Your task to perform on an android device: Is it going to rain today? Image 0: 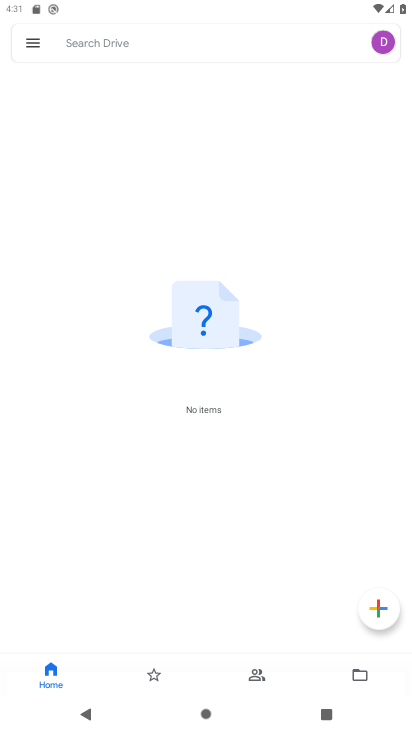
Step 0: press home button
Your task to perform on an android device: Is it going to rain today? Image 1: 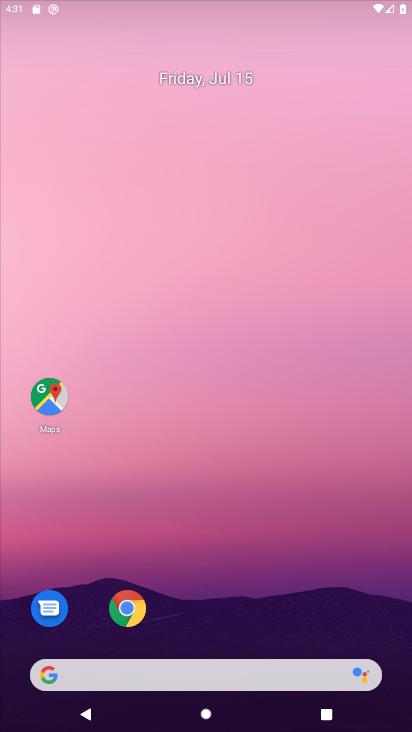
Step 1: click (181, 672)
Your task to perform on an android device: Is it going to rain today? Image 2: 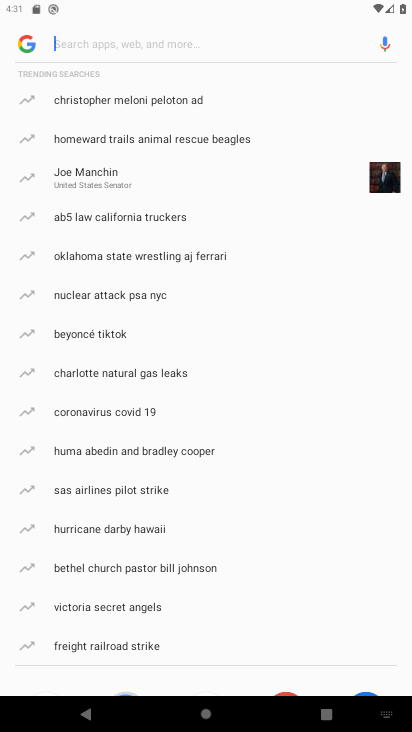
Step 2: type "weather"
Your task to perform on an android device: Is it going to rain today? Image 3: 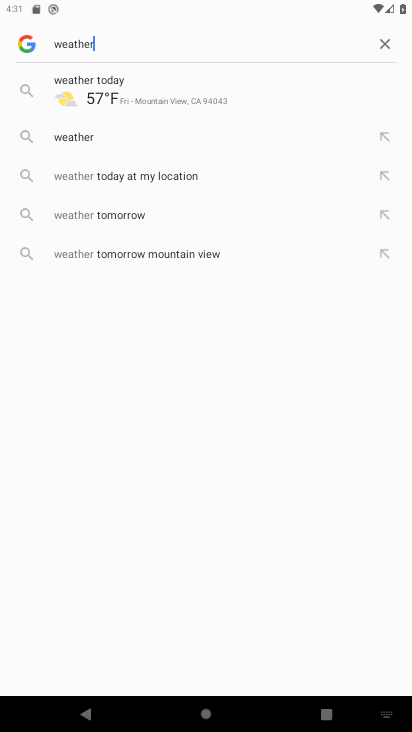
Step 3: click (95, 142)
Your task to perform on an android device: Is it going to rain today? Image 4: 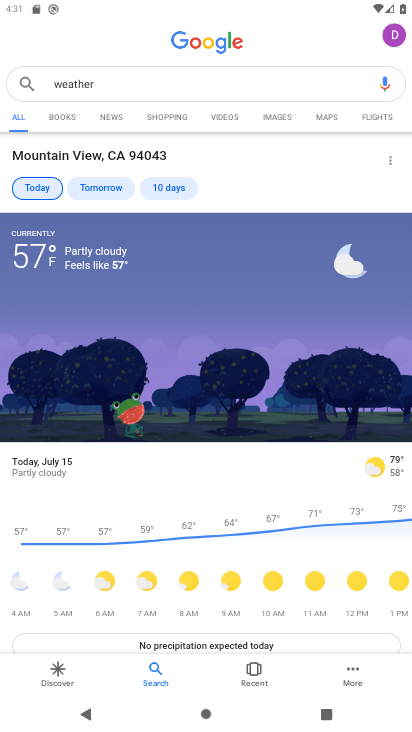
Step 4: task complete